Your task to perform on an android device: Open Google Maps and go to "Timeline" Image 0: 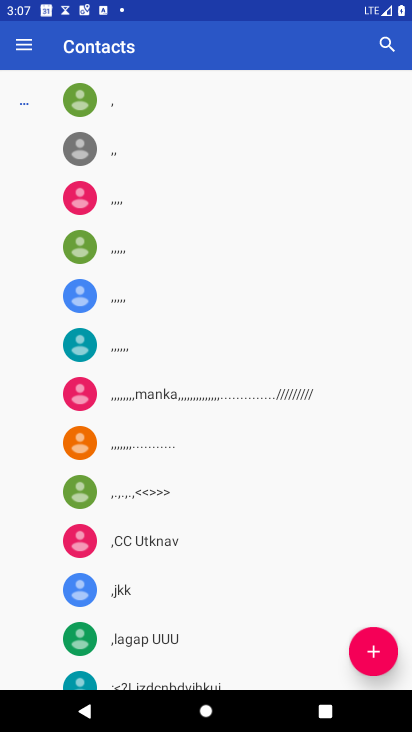
Step 0: press home button
Your task to perform on an android device: Open Google Maps and go to "Timeline" Image 1: 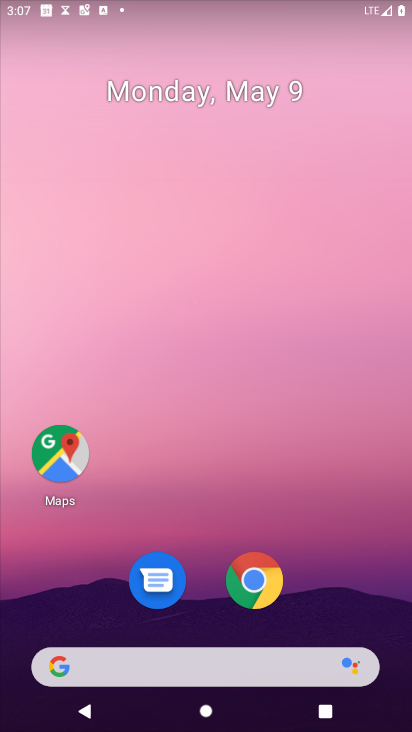
Step 1: click (61, 441)
Your task to perform on an android device: Open Google Maps and go to "Timeline" Image 2: 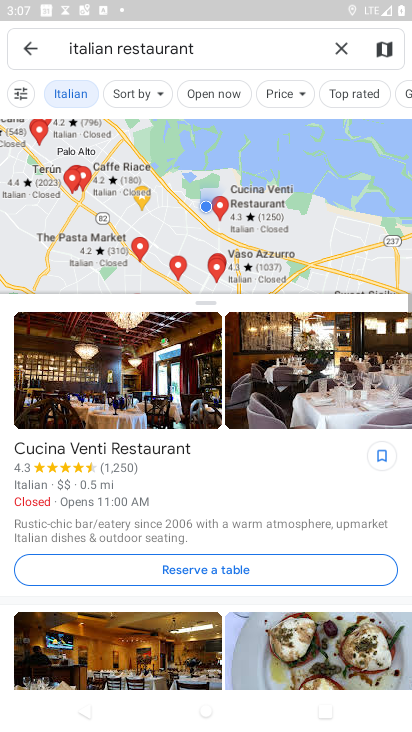
Step 2: click (29, 51)
Your task to perform on an android device: Open Google Maps and go to "Timeline" Image 3: 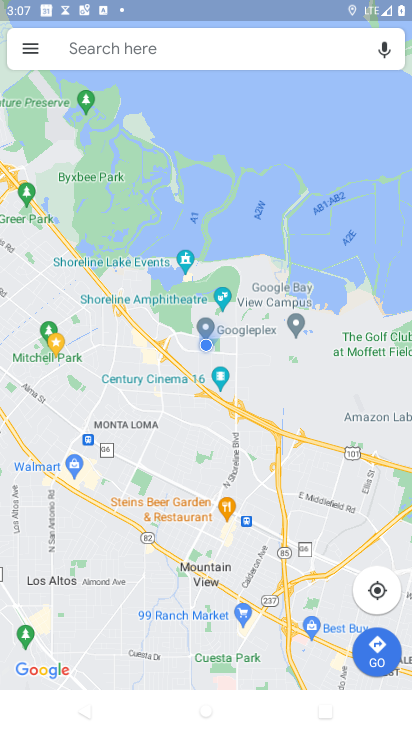
Step 3: click (28, 46)
Your task to perform on an android device: Open Google Maps and go to "Timeline" Image 4: 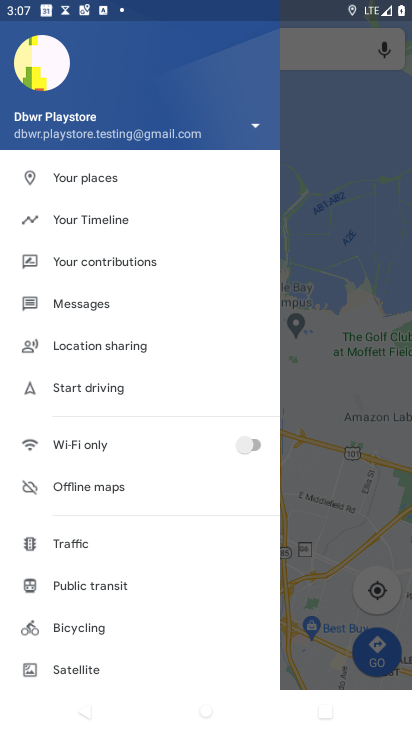
Step 4: click (124, 226)
Your task to perform on an android device: Open Google Maps and go to "Timeline" Image 5: 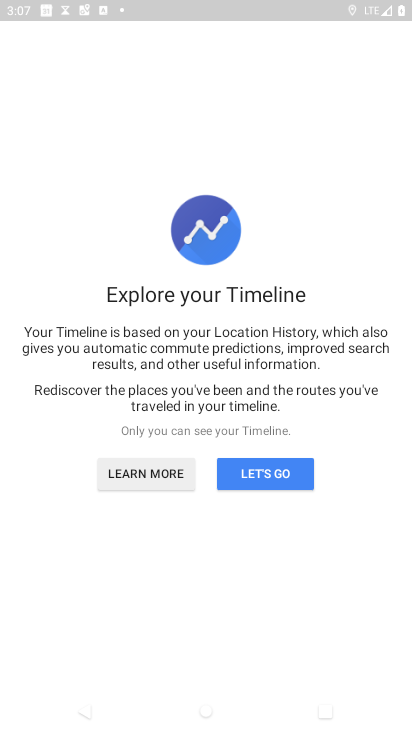
Step 5: click (291, 477)
Your task to perform on an android device: Open Google Maps and go to "Timeline" Image 6: 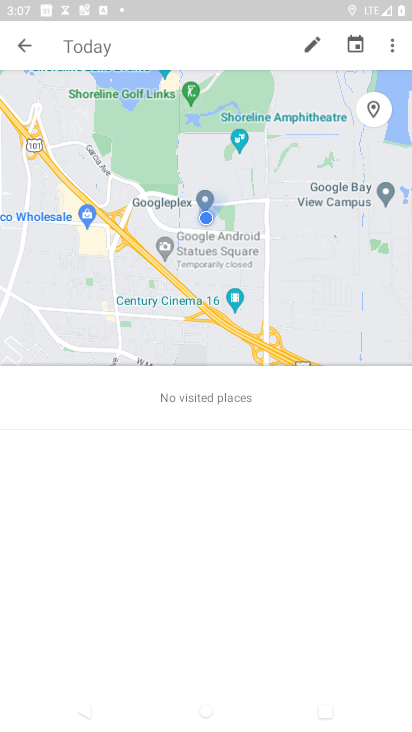
Step 6: task complete